Your task to perform on an android device: turn smart compose on in the gmail app Image 0: 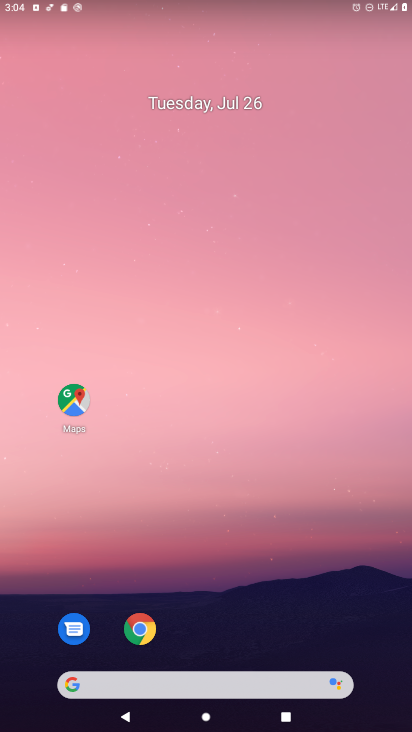
Step 0: drag from (375, 673) to (331, 326)
Your task to perform on an android device: turn smart compose on in the gmail app Image 1: 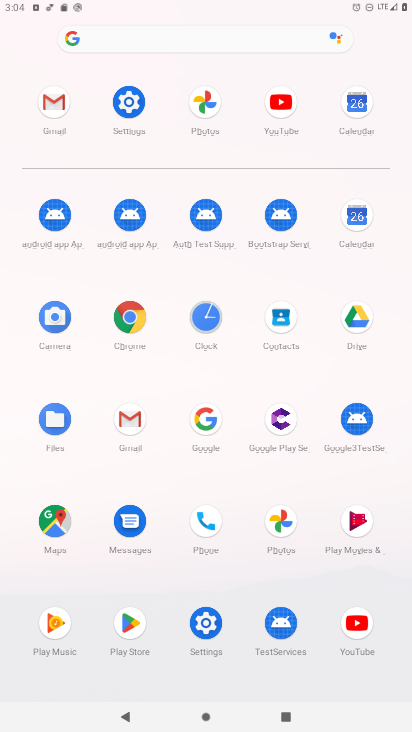
Step 1: click (126, 417)
Your task to perform on an android device: turn smart compose on in the gmail app Image 2: 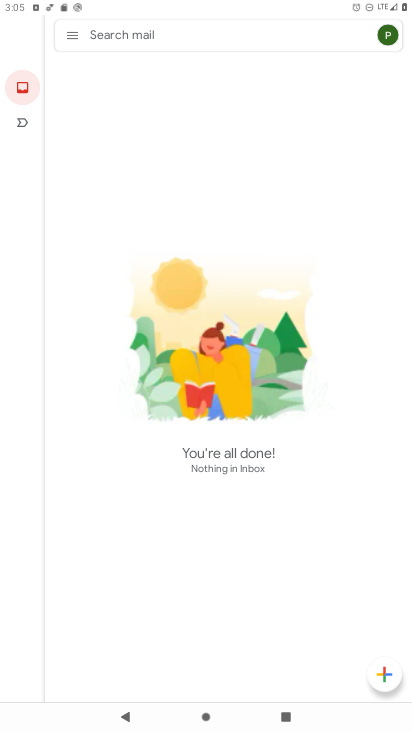
Step 2: click (69, 33)
Your task to perform on an android device: turn smart compose on in the gmail app Image 3: 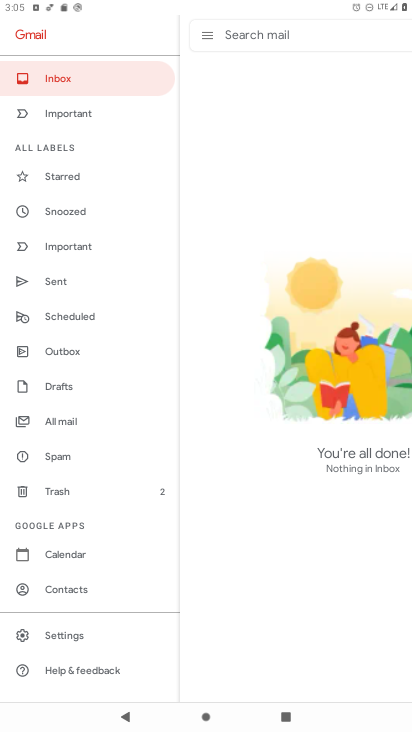
Step 3: click (56, 635)
Your task to perform on an android device: turn smart compose on in the gmail app Image 4: 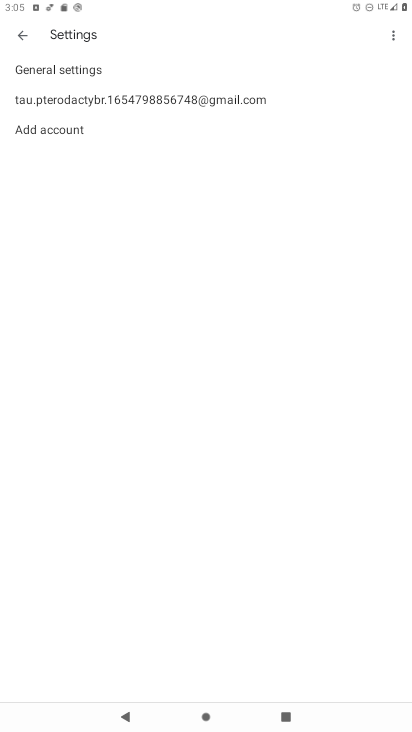
Step 4: click (99, 101)
Your task to perform on an android device: turn smart compose on in the gmail app Image 5: 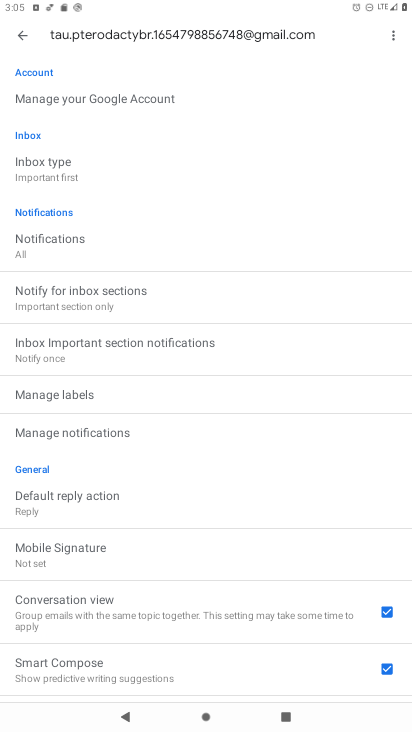
Step 5: task complete